Your task to perform on an android device: Set the phone to "Do not disturb". Image 0: 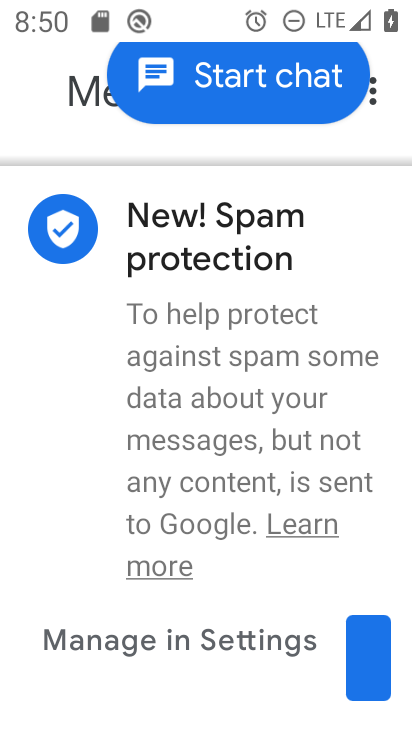
Step 0: press home button
Your task to perform on an android device: Set the phone to "Do not disturb". Image 1: 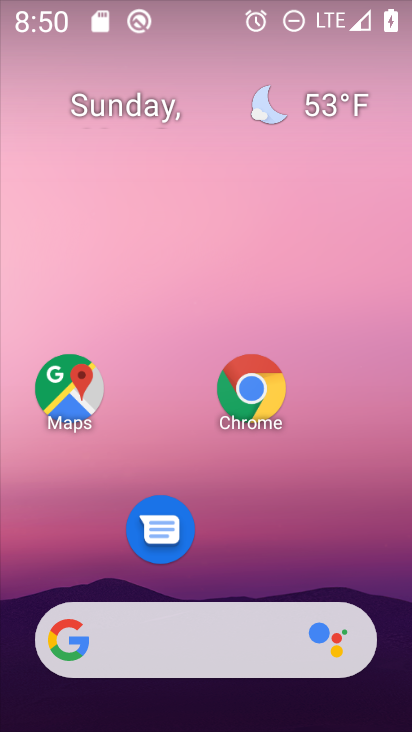
Step 1: drag from (224, 583) to (208, 123)
Your task to perform on an android device: Set the phone to "Do not disturb". Image 2: 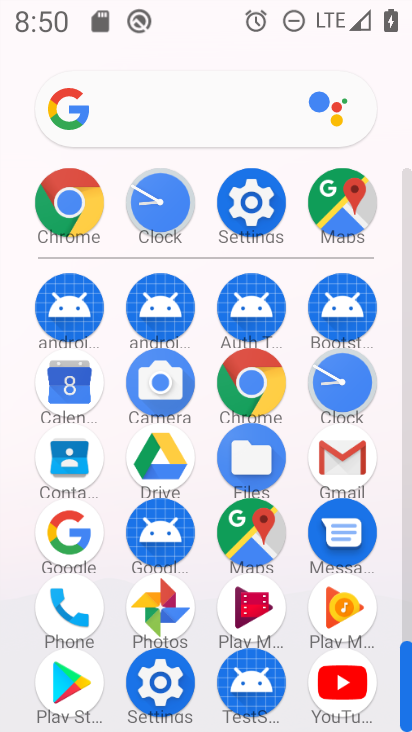
Step 2: click (250, 215)
Your task to perform on an android device: Set the phone to "Do not disturb". Image 3: 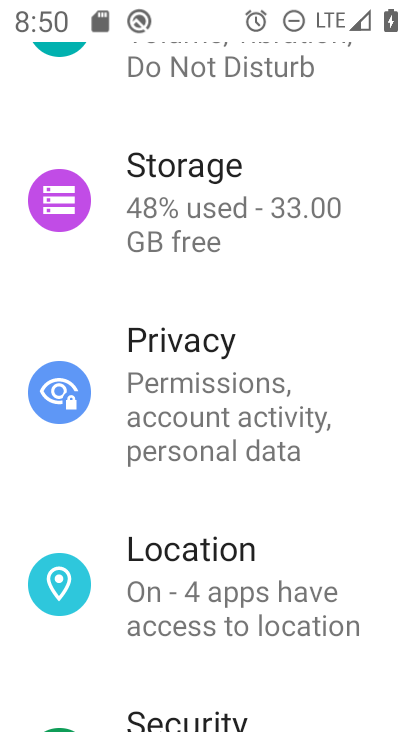
Step 3: drag from (212, 205) to (198, 629)
Your task to perform on an android device: Set the phone to "Do not disturb". Image 4: 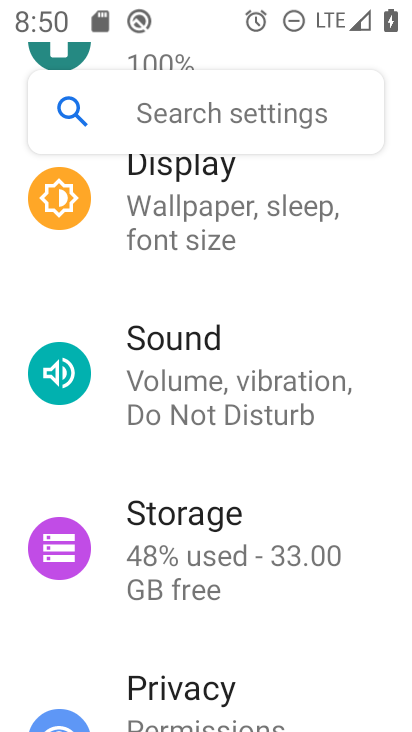
Step 4: click (190, 387)
Your task to perform on an android device: Set the phone to "Do not disturb". Image 5: 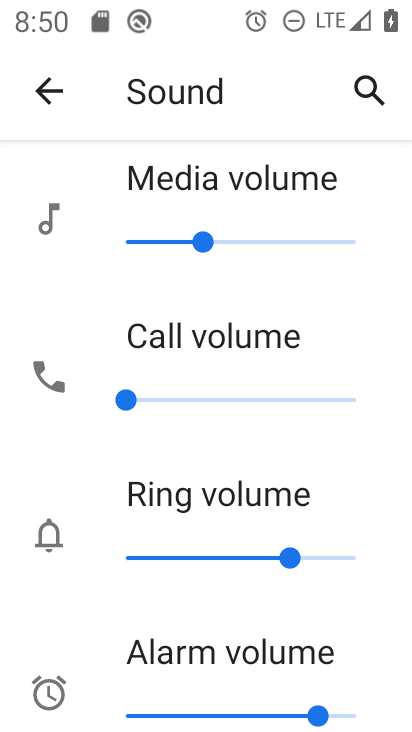
Step 5: drag from (191, 608) to (261, 179)
Your task to perform on an android device: Set the phone to "Do not disturb". Image 6: 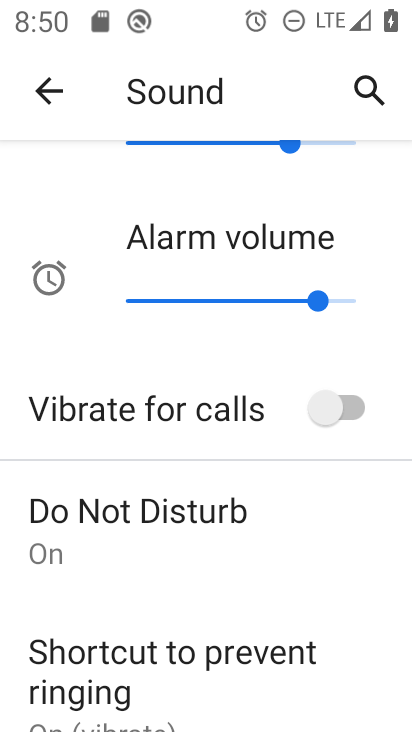
Step 6: click (184, 554)
Your task to perform on an android device: Set the phone to "Do not disturb". Image 7: 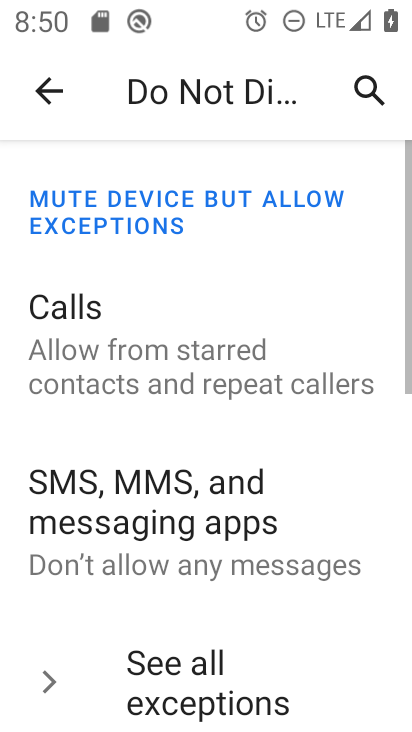
Step 7: task complete